Your task to perform on an android device: Clear the shopping cart on bestbuy.com. Image 0: 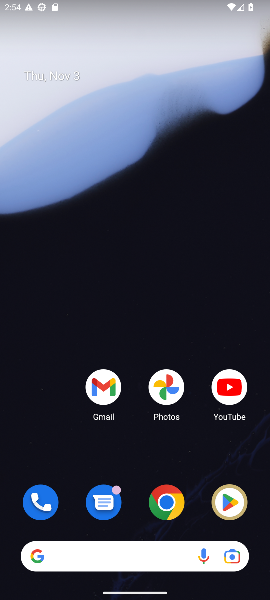
Step 0: drag from (108, 542) to (143, 34)
Your task to perform on an android device: Clear the shopping cart on bestbuy.com. Image 1: 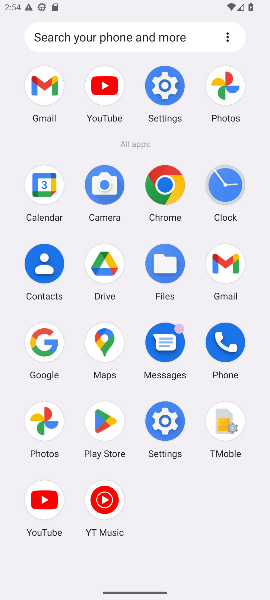
Step 1: click (49, 355)
Your task to perform on an android device: Clear the shopping cart on bestbuy.com. Image 2: 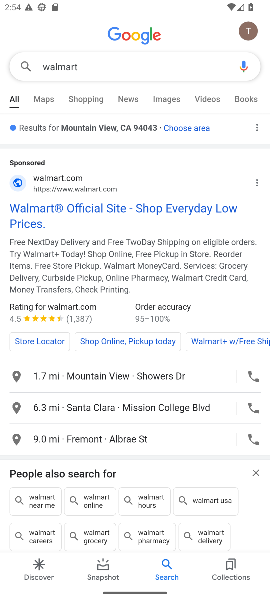
Step 2: click (145, 61)
Your task to perform on an android device: Clear the shopping cart on bestbuy.com. Image 3: 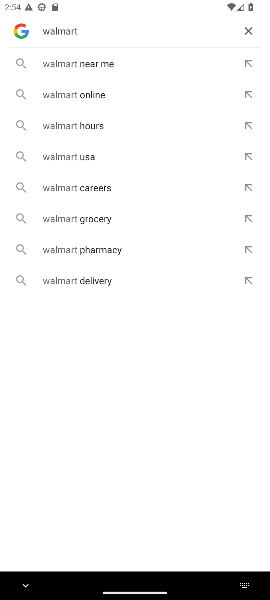
Step 3: click (252, 29)
Your task to perform on an android device: Clear the shopping cart on bestbuy.com. Image 4: 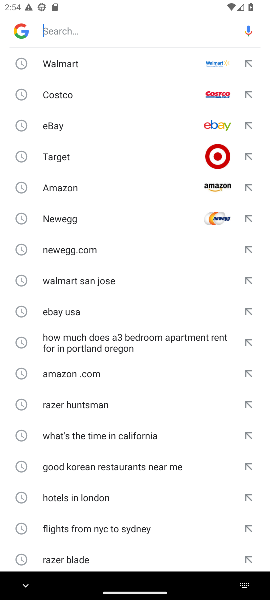
Step 4: type "bestbuy.com"
Your task to perform on an android device: Clear the shopping cart on bestbuy.com. Image 5: 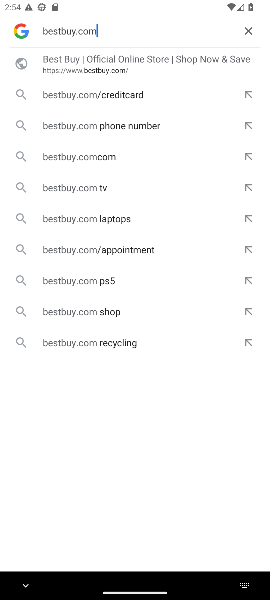
Step 5: click (207, 64)
Your task to perform on an android device: Clear the shopping cart on bestbuy.com. Image 6: 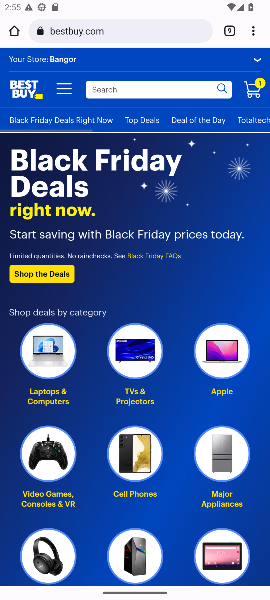
Step 6: click (251, 90)
Your task to perform on an android device: Clear the shopping cart on bestbuy.com. Image 7: 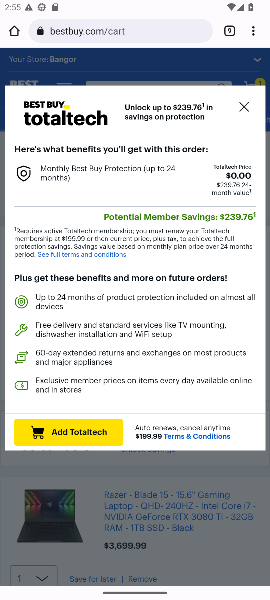
Step 7: click (240, 105)
Your task to perform on an android device: Clear the shopping cart on bestbuy.com. Image 8: 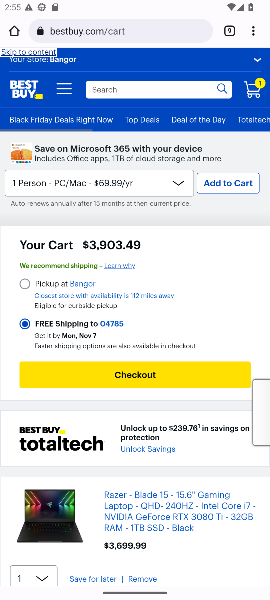
Step 8: drag from (197, 459) to (197, 357)
Your task to perform on an android device: Clear the shopping cart on bestbuy.com. Image 9: 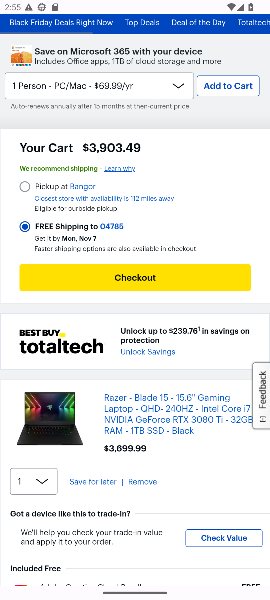
Step 9: click (140, 482)
Your task to perform on an android device: Clear the shopping cart on bestbuy.com. Image 10: 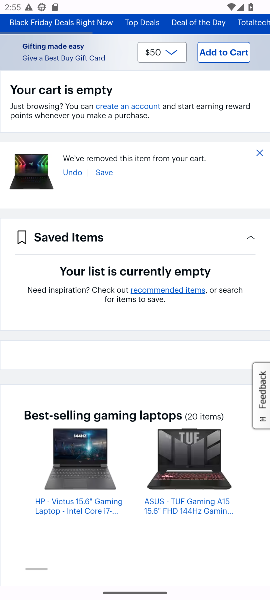
Step 10: task complete